Your task to perform on an android device: turn on wifi Image 0: 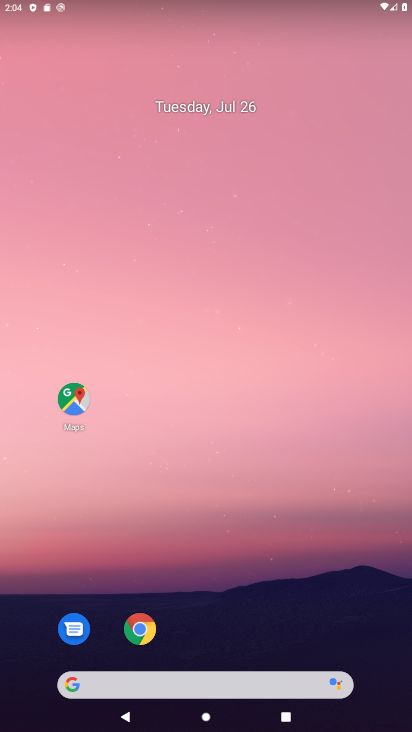
Step 0: drag from (272, 600) to (253, 165)
Your task to perform on an android device: turn on wifi Image 1: 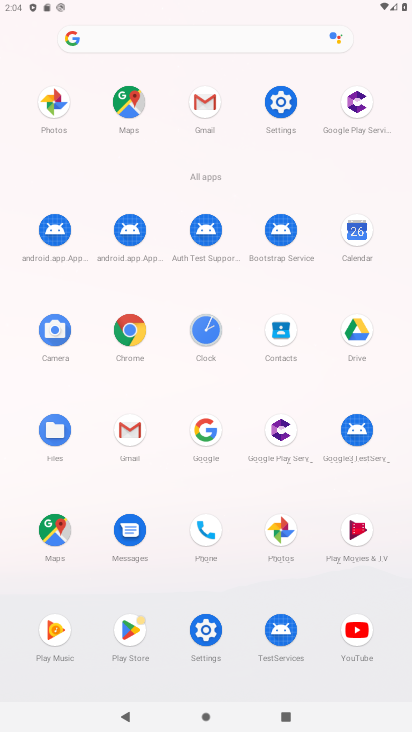
Step 1: click (279, 111)
Your task to perform on an android device: turn on wifi Image 2: 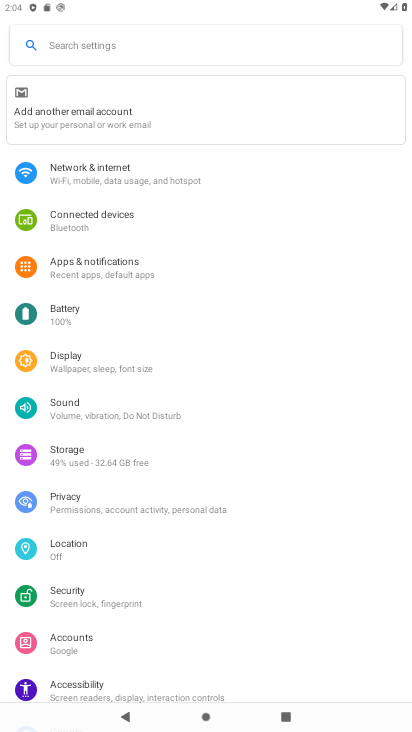
Step 2: click (221, 166)
Your task to perform on an android device: turn on wifi Image 3: 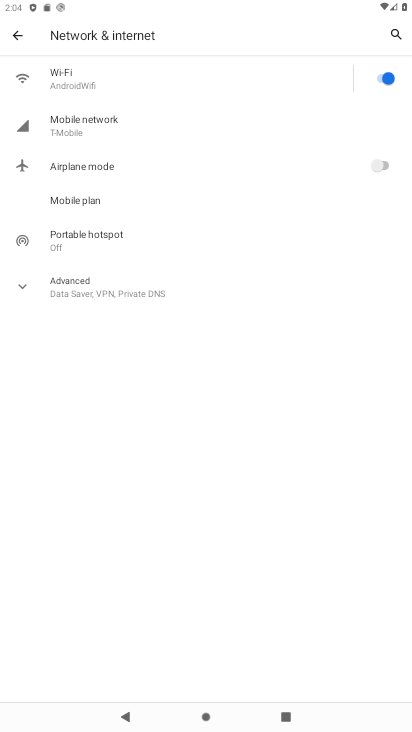
Step 3: task complete